Your task to perform on an android device: Open privacy settings Image 0: 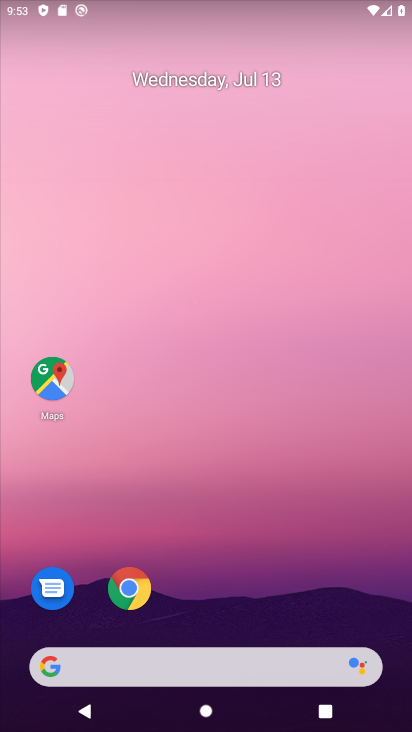
Step 0: drag from (159, 299) to (105, 20)
Your task to perform on an android device: Open privacy settings Image 1: 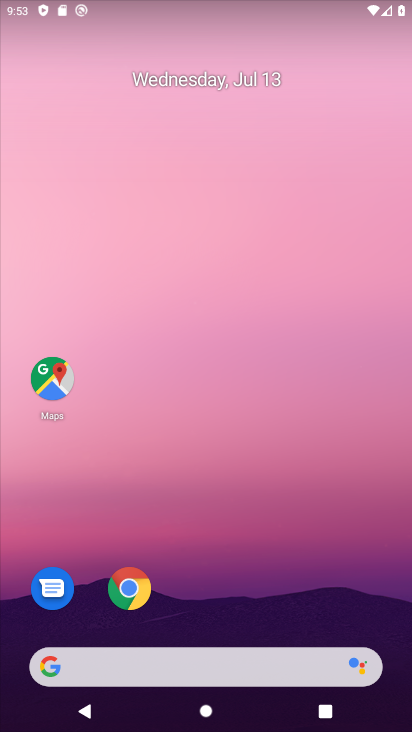
Step 1: drag from (151, 545) to (101, 108)
Your task to perform on an android device: Open privacy settings Image 2: 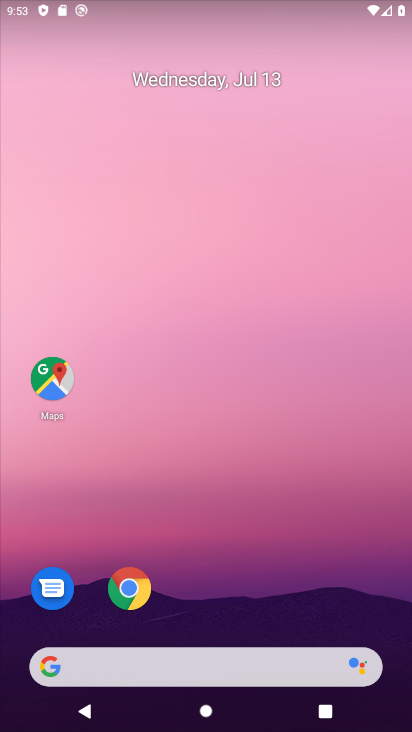
Step 2: drag from (217, 571) to (189, 218)
Your task to perform on an android device: Open privacy settings Image 3: 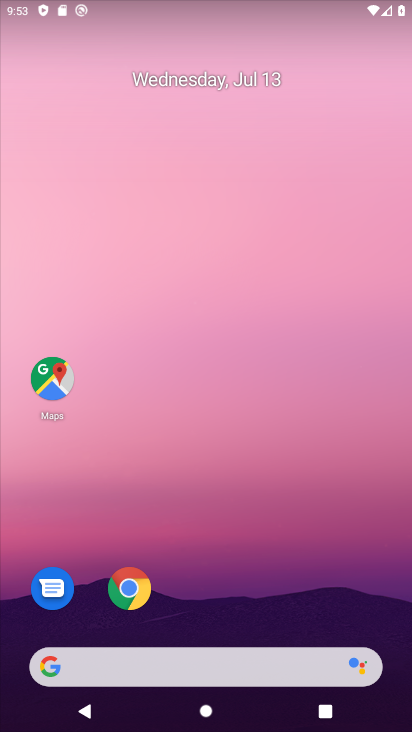
Step 3: drag from (276, 702) to (228, 235)
Your task to perform on an android device: Open privacy settings Image 4: 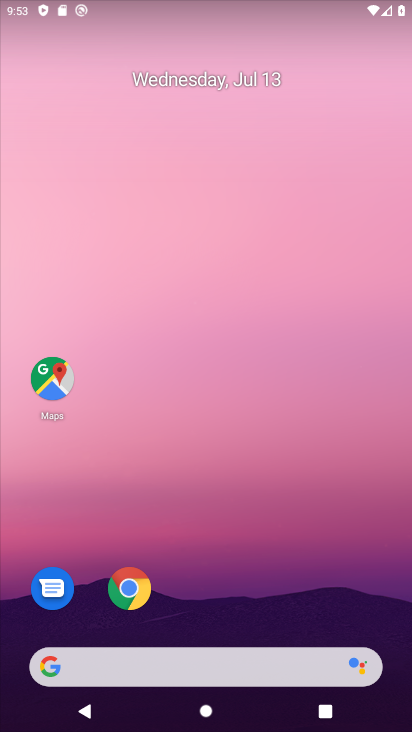
Step 4: drag from (225, 659) to (183, 63)
Your task to perform on an android device: Open privacy settings Image 5: 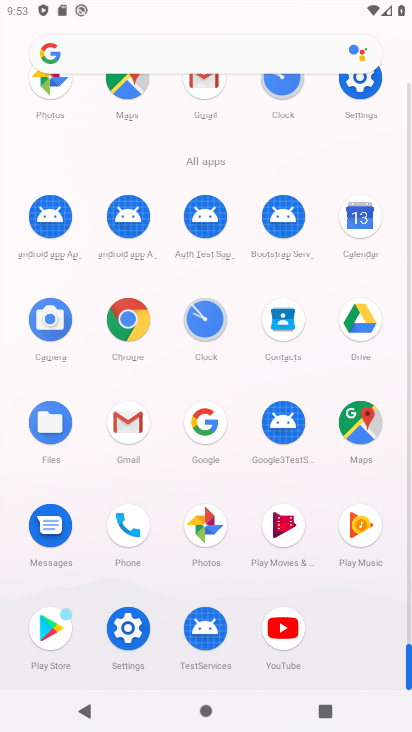
Step 5: click (374, 105)
Your task to perform on an android device: Open privacy settings Image 6: 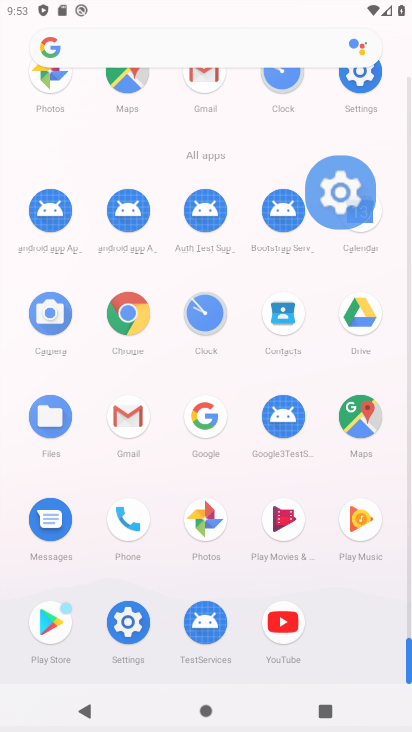
Step 6: click (368, 86)
Your task to perform on an android device: Open privacy settings Image 7: 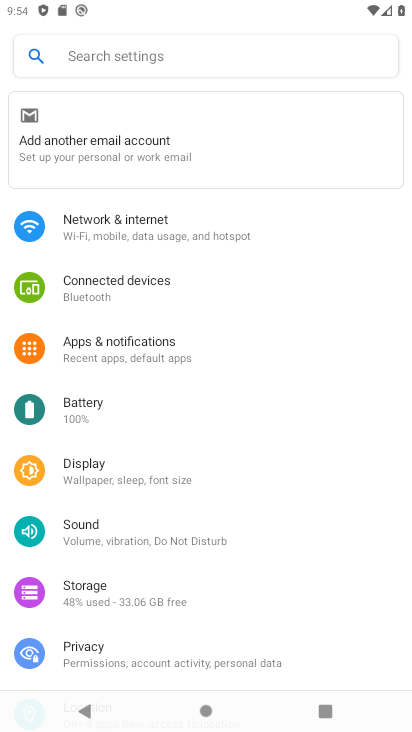
Step 7: click (59, 253)
Your task to perform on an android device: Open privacy settings Image 8: 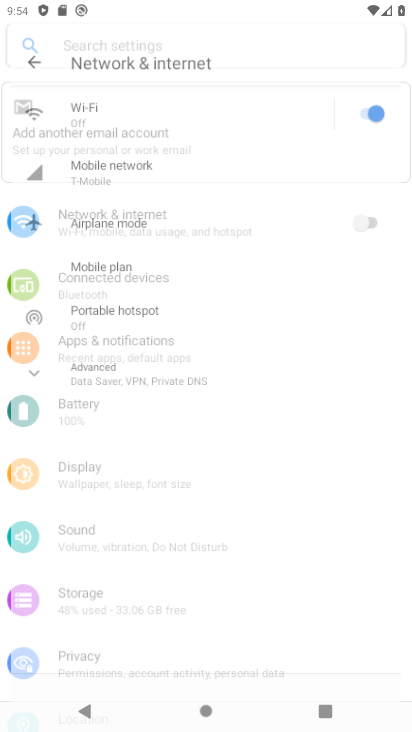
Step 8: click (78, 654)
Your task to perform on an android device: Open privacy settings Image 9: 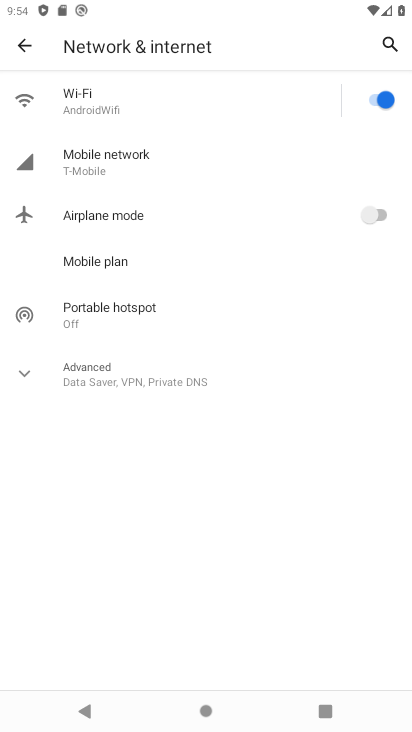
Step 9: click (80, 656)
Your task to perform on an android device: Open privacy settings Image 10: 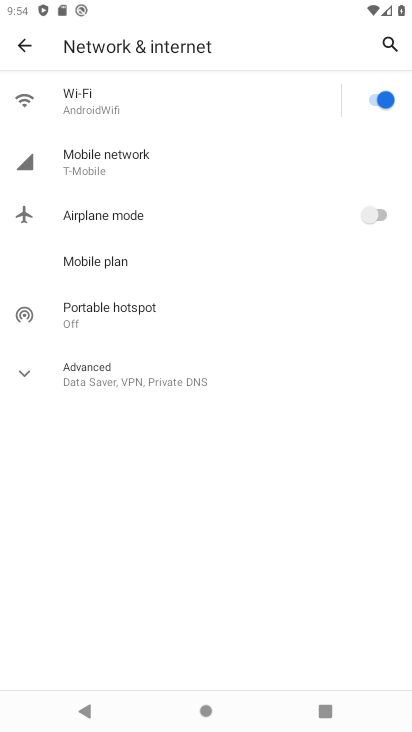
Step 10: click (33, 41)
Your task to perform on an android device: Open privacy settings Image 11: 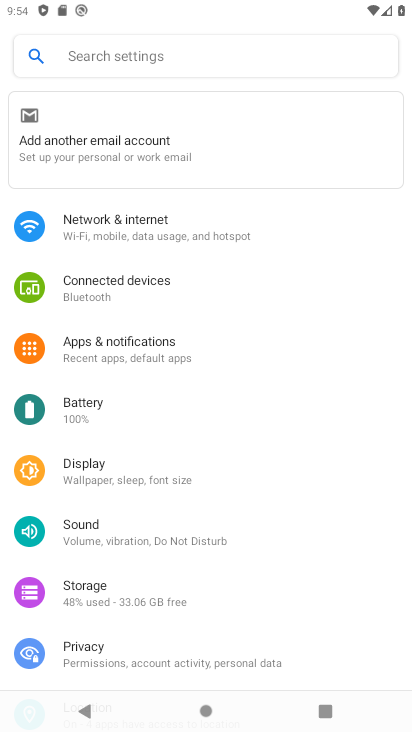
Step 11: click (81, 555)
Your task to perform on an android device: Open privacy settings Image 12: 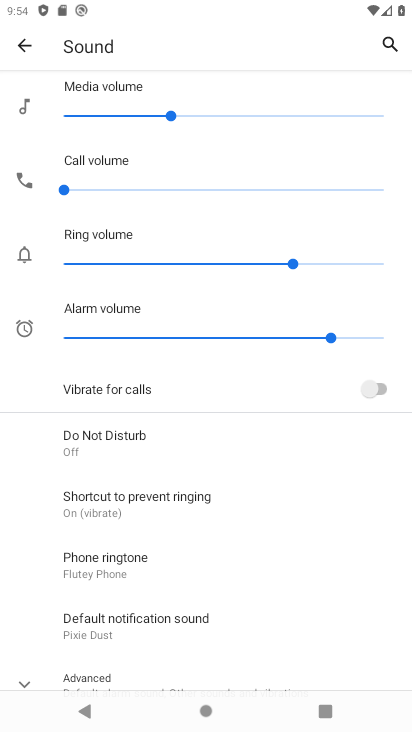
Step 12: click (22, 37)
Your task to perform on an android device: Open privacy settings Image 13: 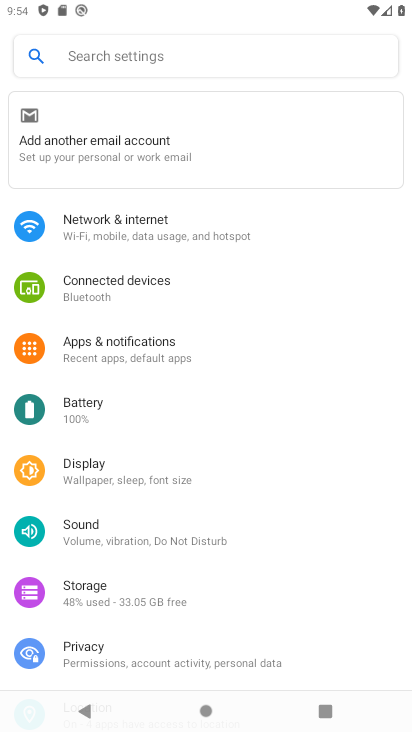
Step 13: click (87, 658)
Your task to perform on an android device: Open privacy settings Image 14: 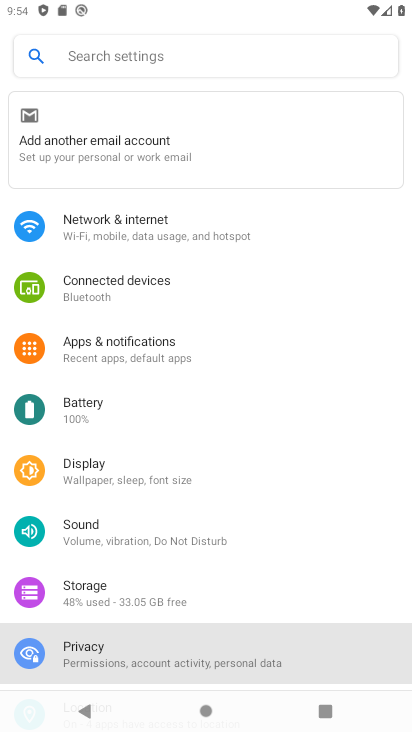
Step 14: click (87, 658)
Your task to perform on an android device: Open privacy settings Image 15: 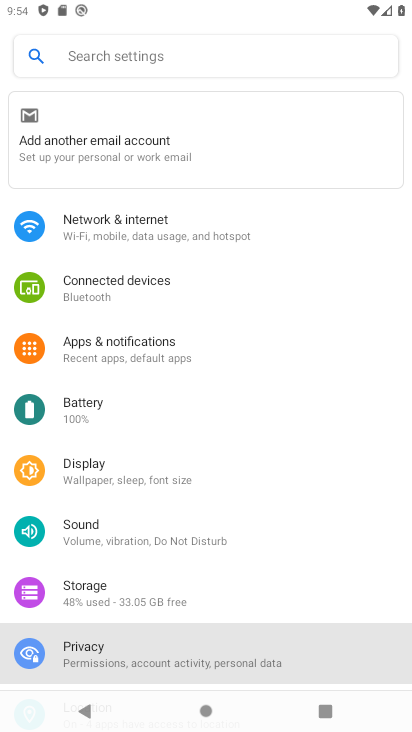
Step 15: click (87, 658)
Your task to perform on an android device: Open privacy settings Image 16: 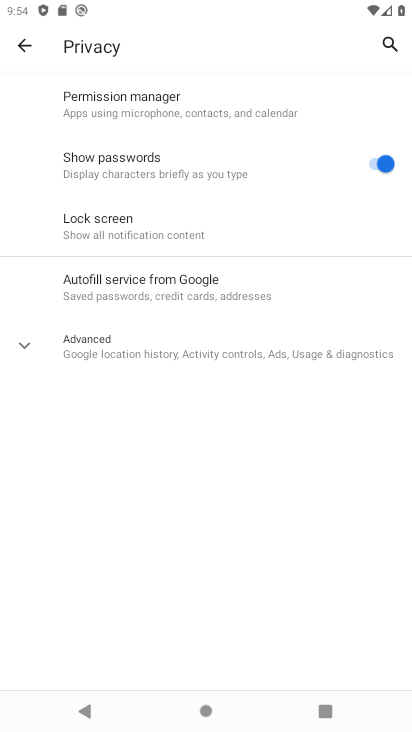
Step 16: task complete